Your task to perform on an android device: Open CNN.com Image 0: 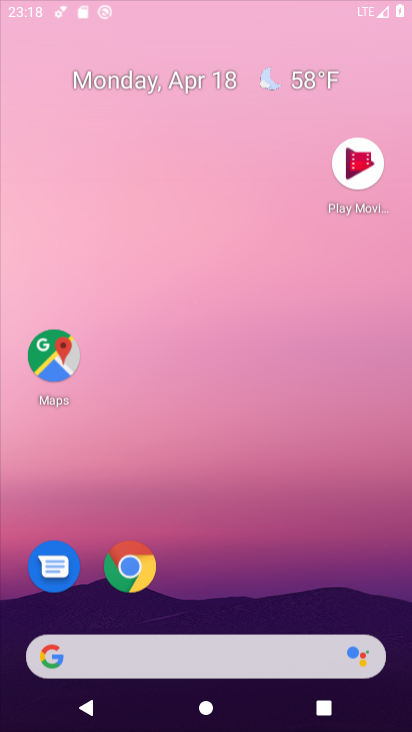
Step 0: click (222, 76)
Your task to perform on an android device: Open CNN.com Image 1: 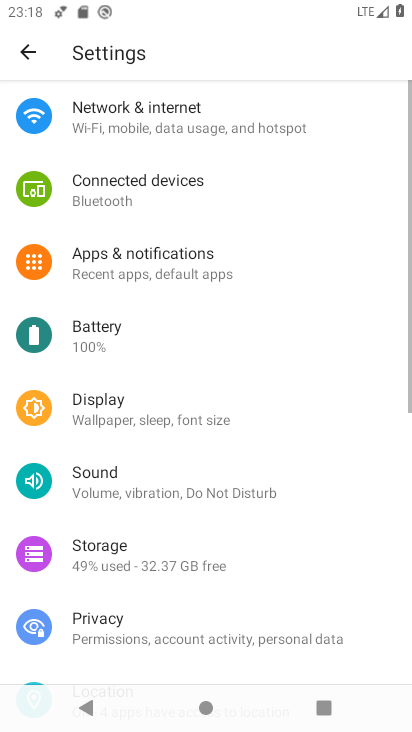
Step 1: press home button
Your task to perform on an android device: Open CNN.com Image 2: 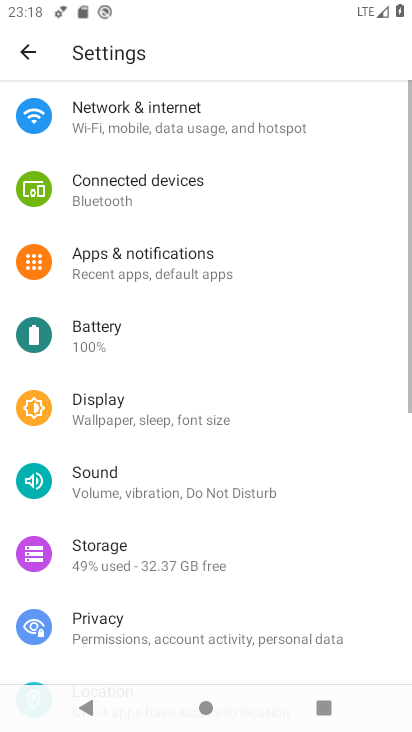
Step 2: press home button
Your task to perform on an android device: Open CNN.com Image 3: 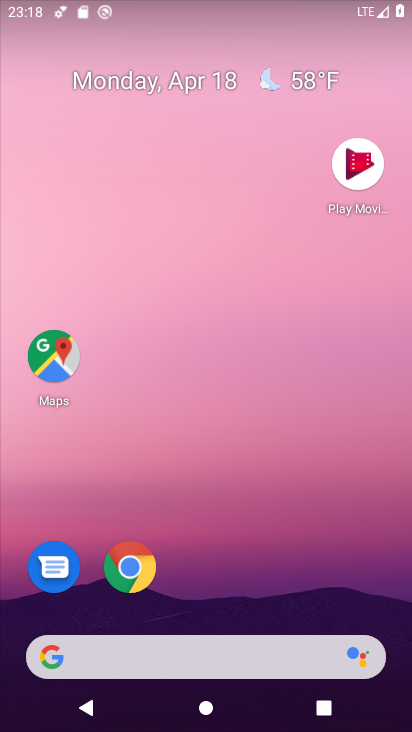
Step 3: drag from (190, 623) to (239, 96)
Your task to perform on an android device: Open CNN.com Image 4: 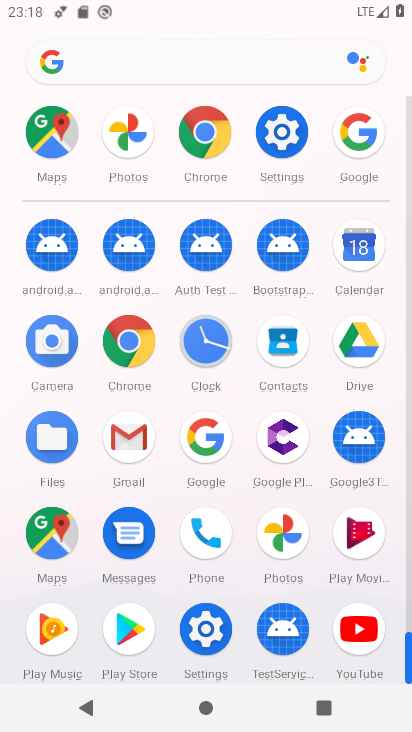
Step 4: click (132, 337)
Your task to perform on an android device: Open CNN.com Image 5: 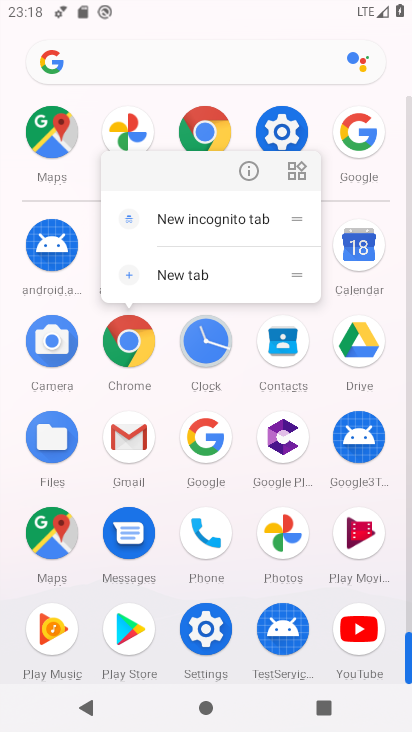
Step 5: click (243, 175)
Your task to perform on an android device: Open CNN.com Image 6: 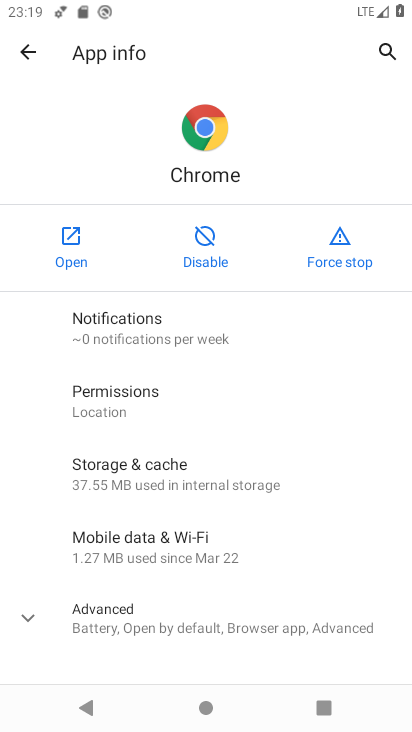
Step 6: click (70, 232)
Your task to perform on an android device: Open CNN.com Image 7: 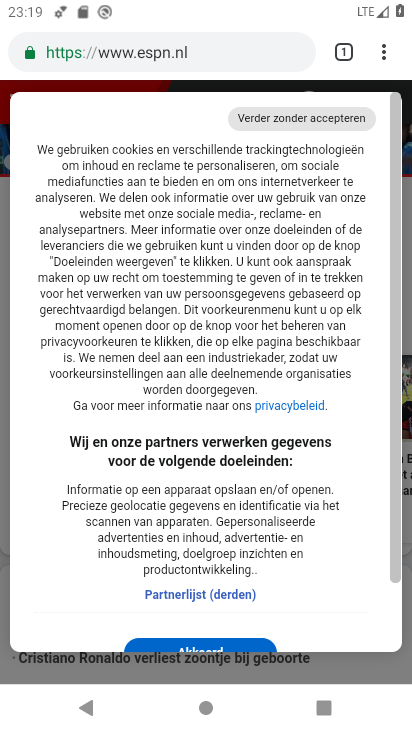
Step 7: drag from (263, 508) to (280, 264)
Your task to perform on an android device: Open CNN.com Image 8: 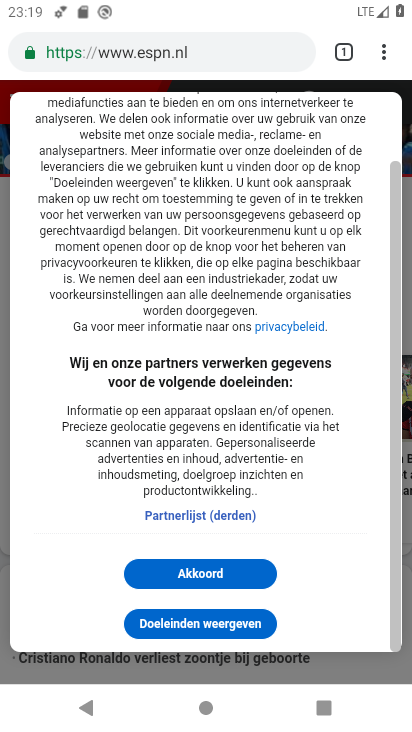
Step 8: click (295, 415)
Your task to perform on an android device: Open CNN.com Image 9: 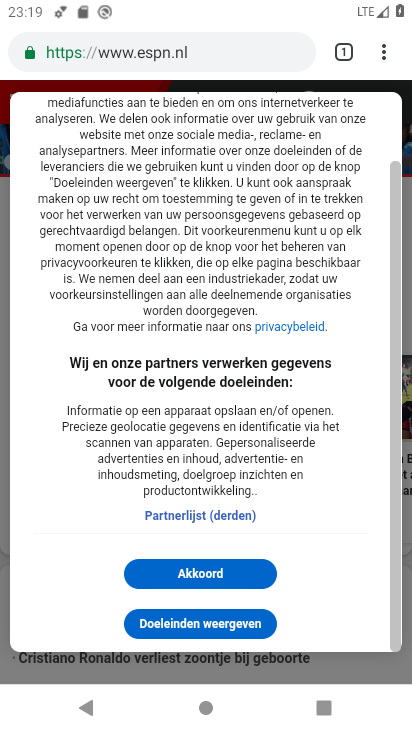
Step 9: drag from (214, 498) to (255, 262)
Your task to perform on an android device: Open CNN.com Image 10: 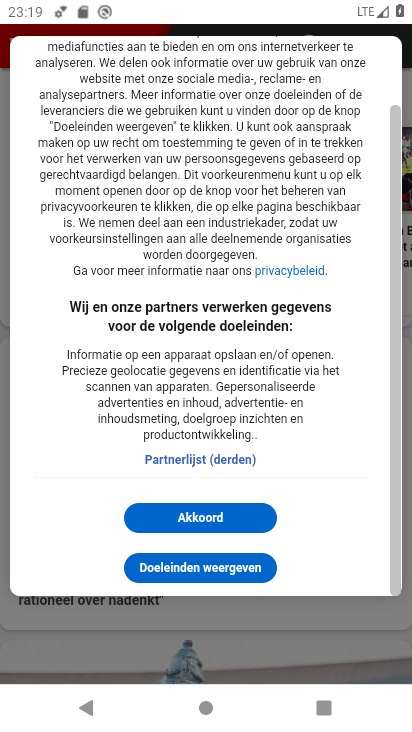
Step 10: drag from (296, 376) to (301, 201)
Your task to perform on an android device: Open CNN.com Image 11: 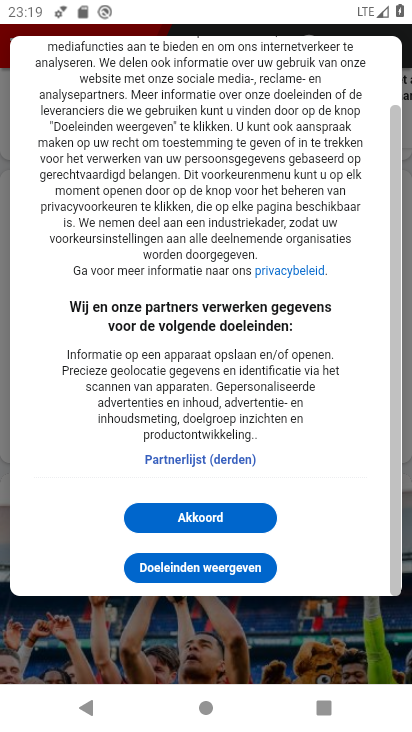
Step 11: drag from (268, 409) to (304, 227)
Your task to perform on an android device: Open CNN.com Image 12: 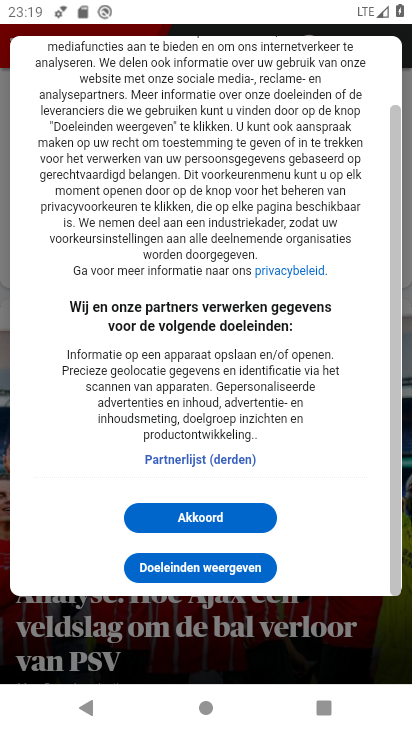
Step 12: drag from (263, 206) to (287, 587)
Your task to perform on an android device: Open CNN.com Image 13: 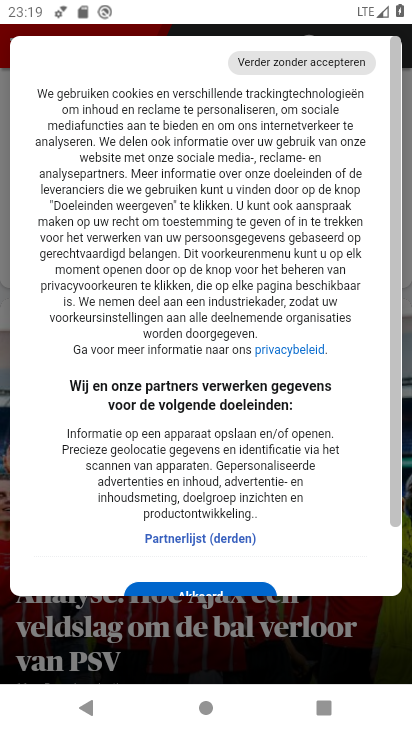
Step 13: press back button
Your task to perform on an android device: Open CNN.com Image 14: 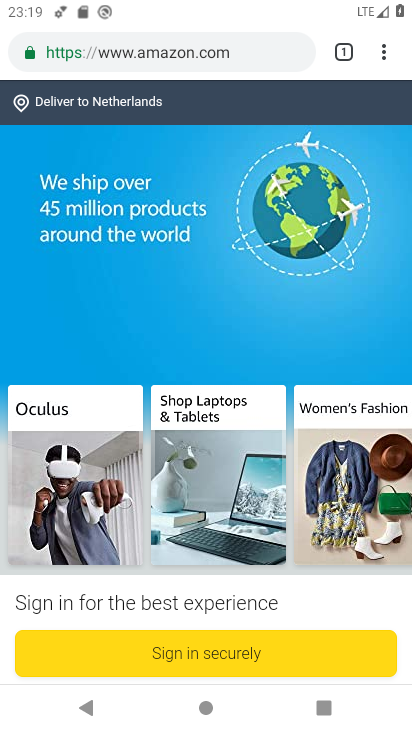
Step 14: click (209, 53)
Your task to perform on an android device: Open CNN.com Image 15: 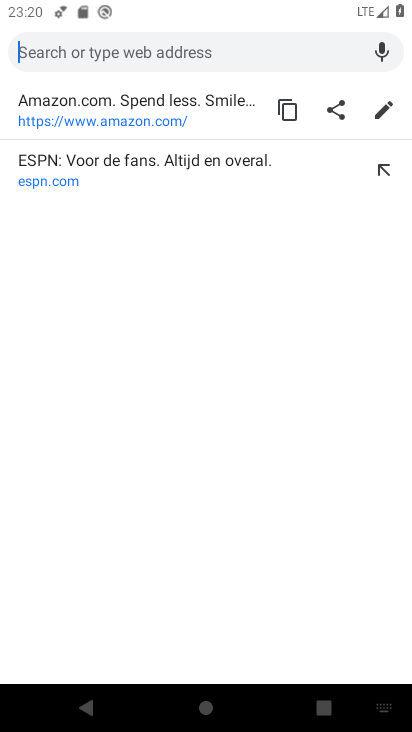
Step 15: click (137, 57)
Your task to perform on an android device: Open CNN.com Image 16: 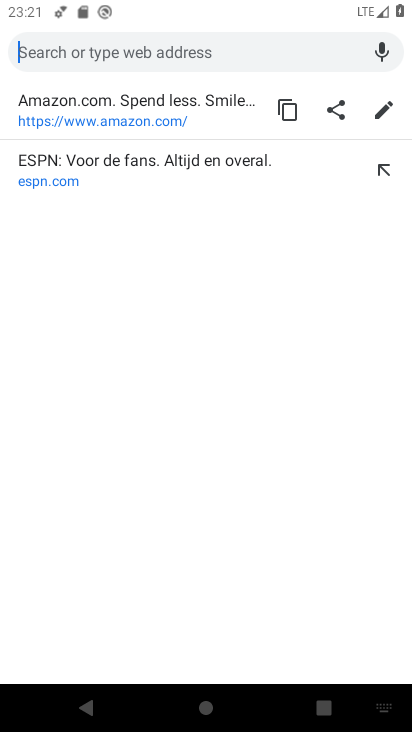
Step 16: type "cnn"
Your task to perform on an android device: Open CNN.com Image 17: 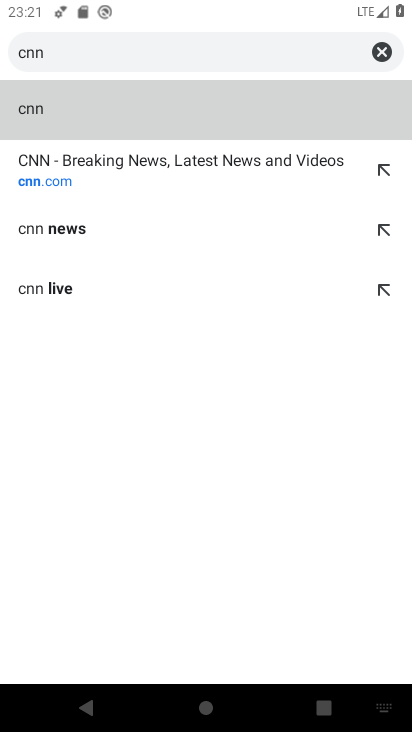
Step 17: click (59, 167)
Your task to perform on an android device: Open CNN.com Image 18: 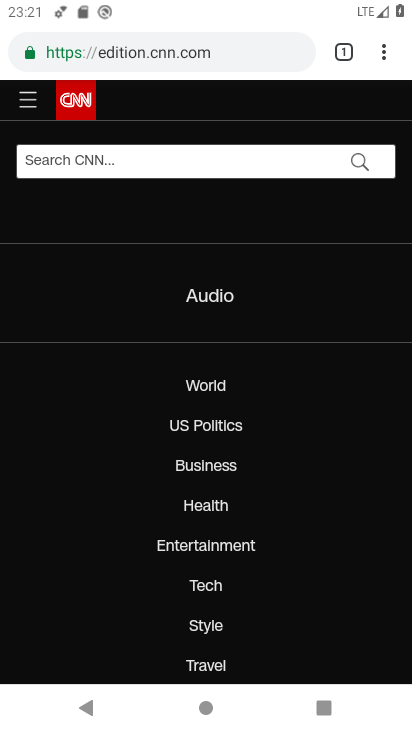
Step 18: task complete